Your task to perform on an android device: Go to Android settings Image 0: 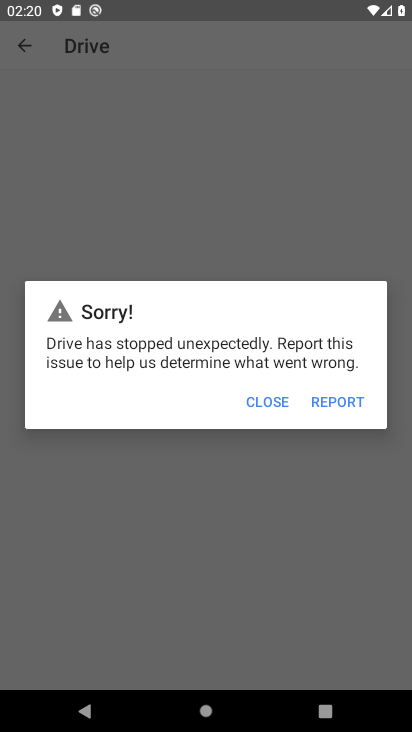
Step 0: press home button
Your task to perform on an android device: Go to Android settings Image 1: 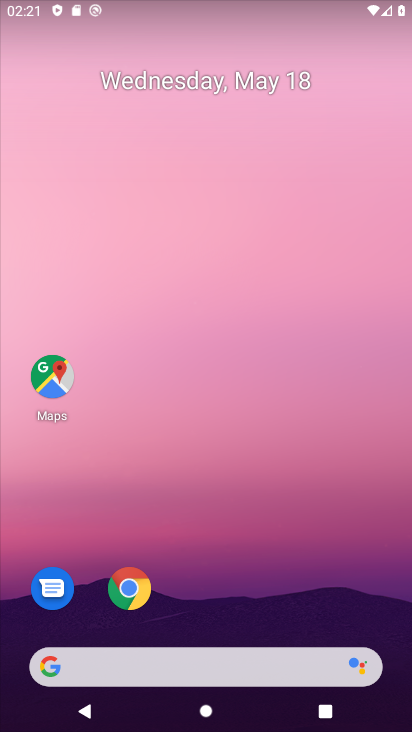
Step 1: drag from (144, 725) to (231, 46)
Your task to perform on an android device: Go to Android settings Image 2: 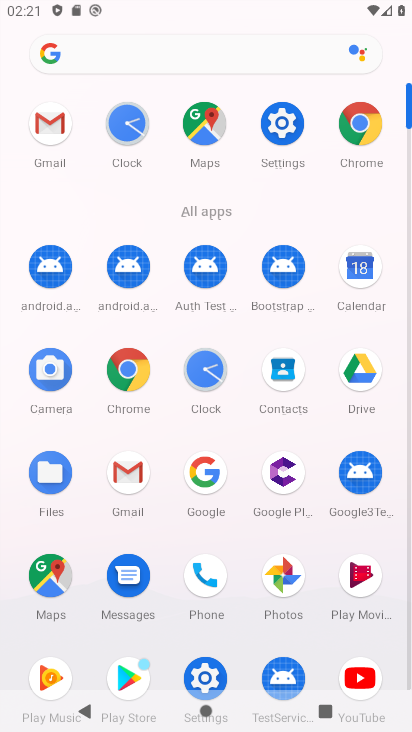
Step 2: click (270, 125)
Your task to perform on an android device: Go to Android settings Image 3: 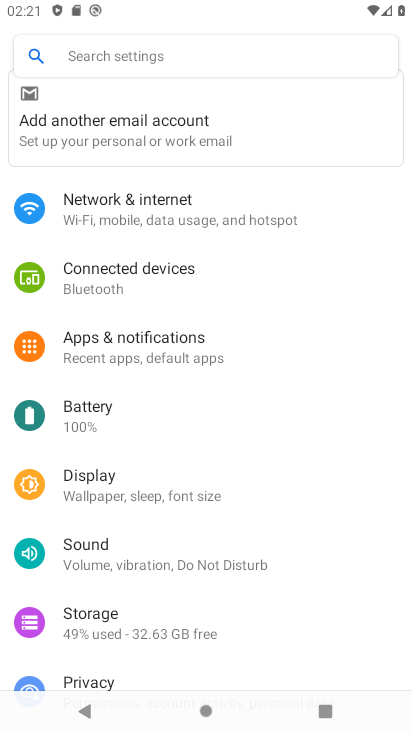
Step 3: drag from (5, 535) to (232, 134)
Your task to perform on an android device: Go to Android settings Image 4: 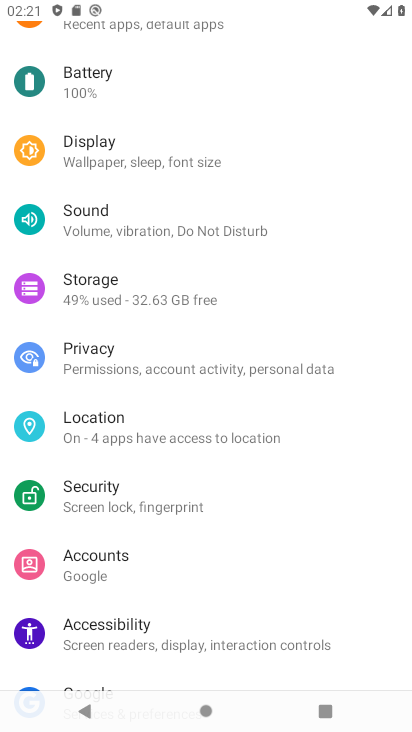
Step 4: drag from (32, 573) to (228, 206)
Your task to perform on an android device: Go to Android settings Image 5: 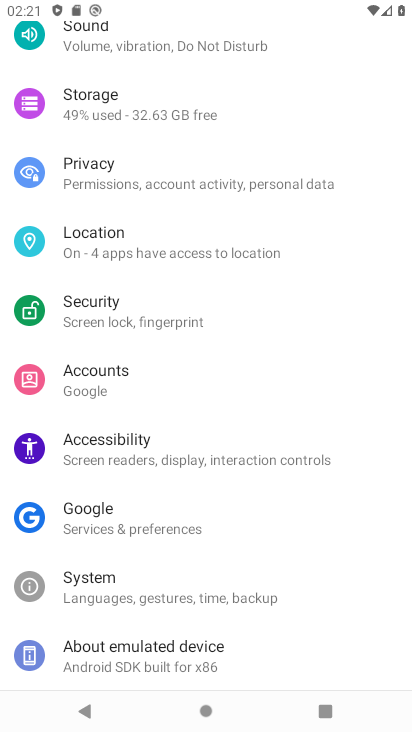
Step 5: click (91, 590)
Your task to perform on an android device: Go to Android settings Image 6: 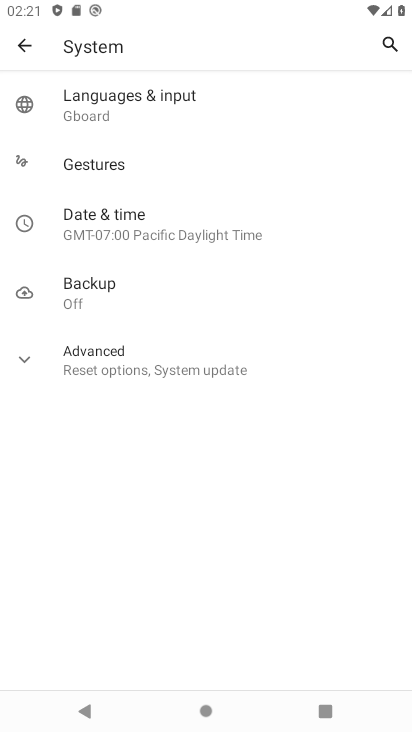
Step 6: click (179, 359)
Your task to perform on an android device: Go to Android settings Image 7: 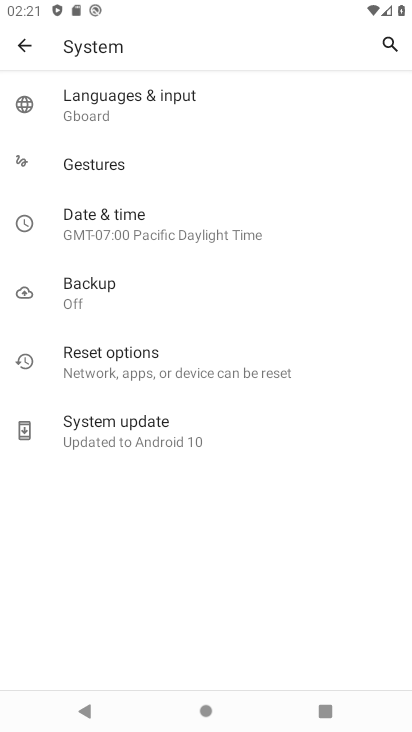
Step 7: click (143, 427)
Your task to perform on an android device: Go to Android settings Image 8: 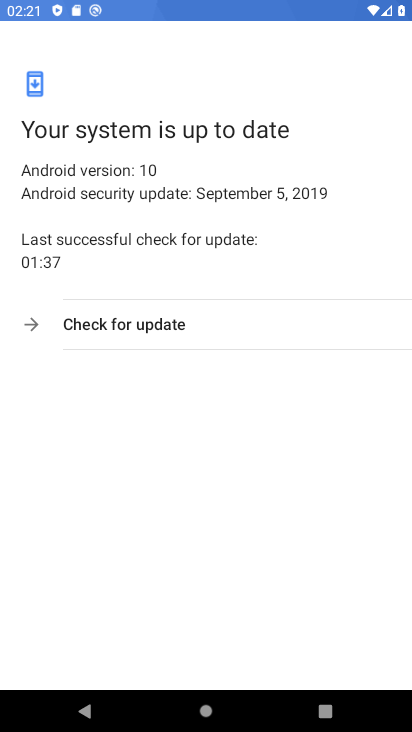
Step 8: task complete